Your task to perform on an android device: Go to Wikipedia Image 0: 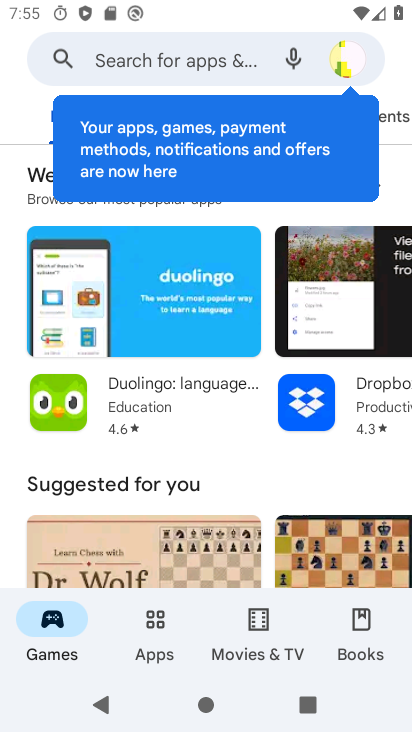
Step 0: press back button
Your task to perform on an android device: Go to Wikipedia Image 1: 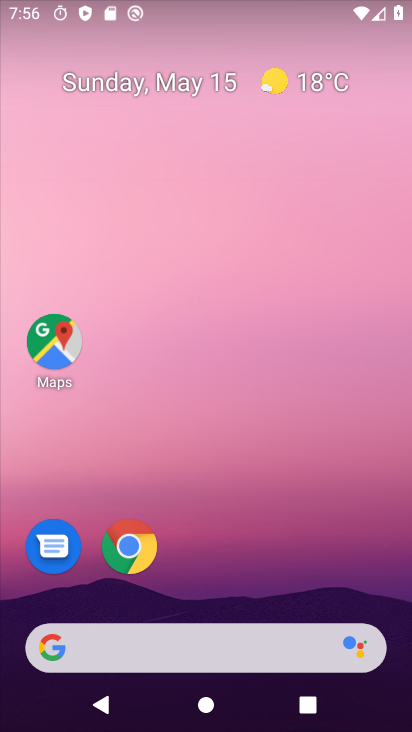
Step 1: click (131, 548)
Your task to perform on an android device: Go to Wikipedia Image 2: 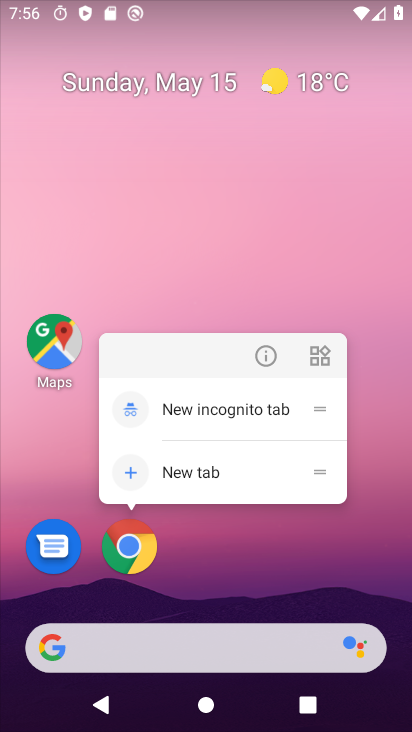
Step 2: click (129, 549)
Your task to perform on an android device: Go to Wikipedia Image 3: 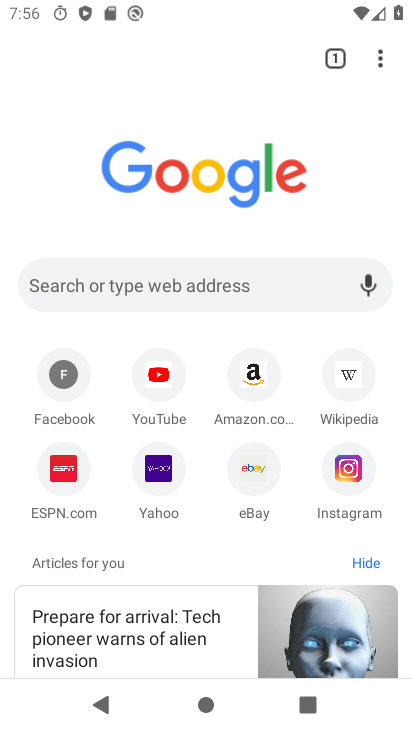
Step 3: click (352, 368)
Your task to perform on an android device: Go to Wikipedia Image 4: 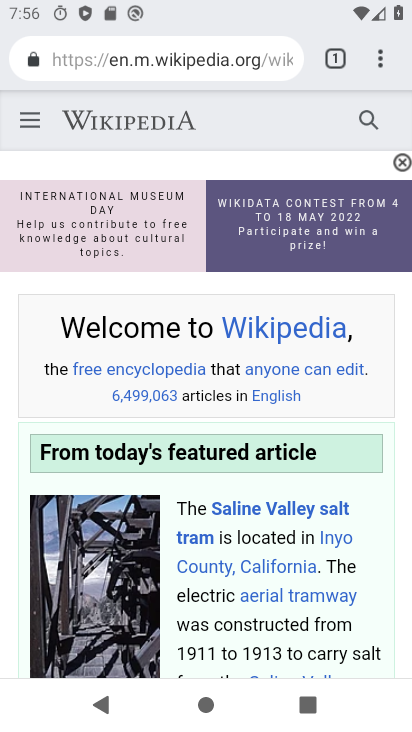
Step 4: task complete